Your task to perform on an android device: What's the weather going to be tomorrow? Image 0: 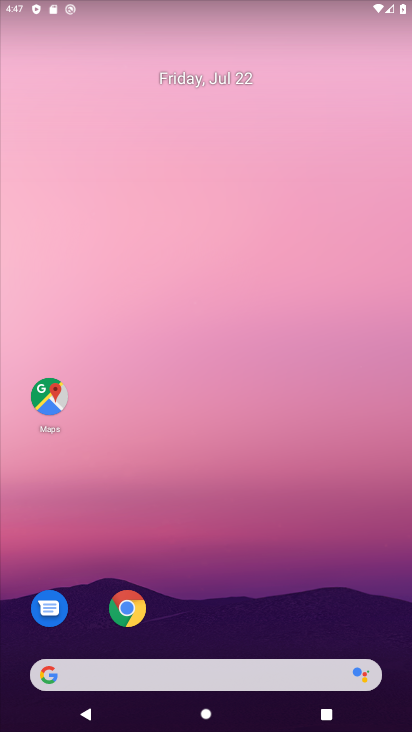
Step 0: click (215, 672)
Your task to perform on an android device: What's the weather going to be tomorrow? Image 1: 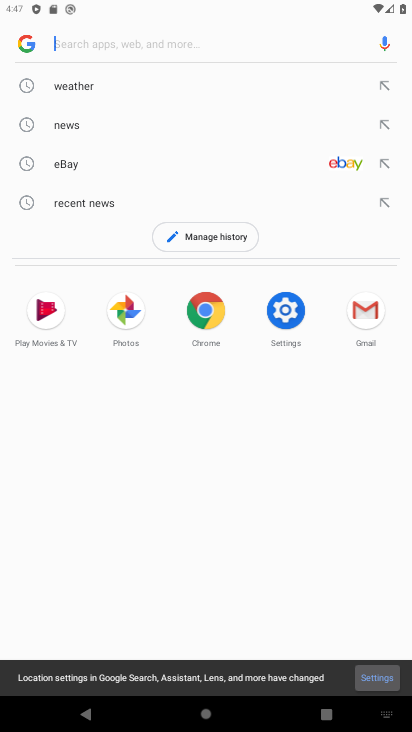
Step 1: click (88, 86)
Your task to perform on an android device: What's the weather going to be tomorrow? Image 2: 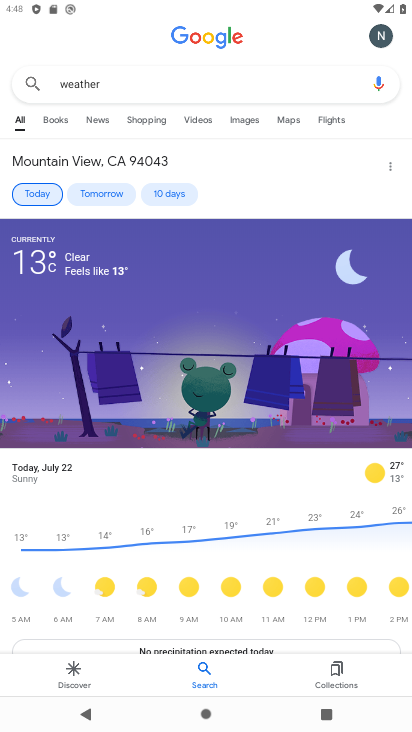
Step 2: task complete